Your task to perform on an android device: set the timer Image 0: 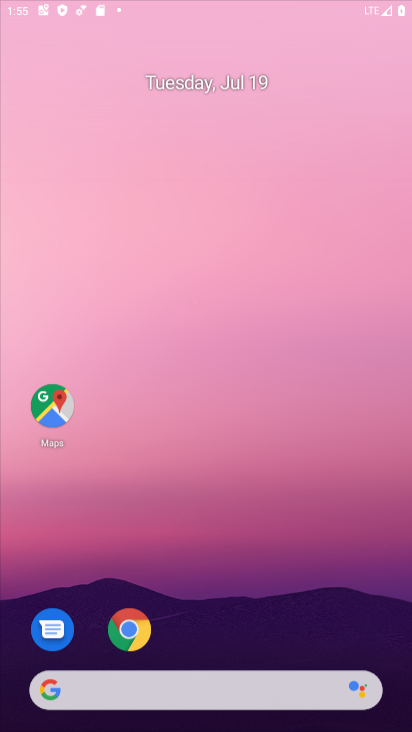
Step 0: press home button
Your task to perform on an android device: set the timer Image 1: 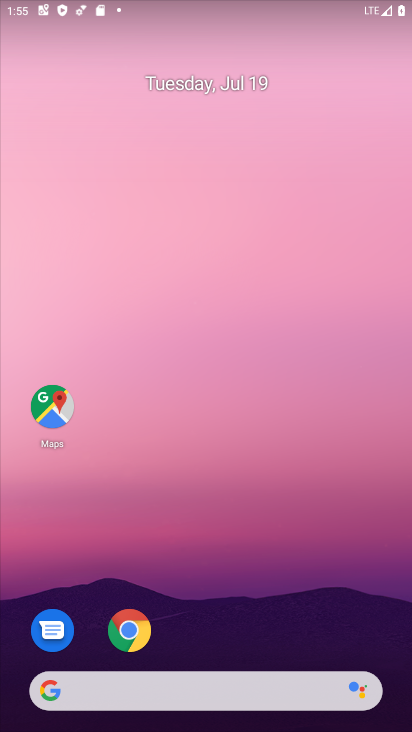
Step 1: drag from (211, 658) to (250, 147)
Your task to perform on an android device: set the timer Image 2: 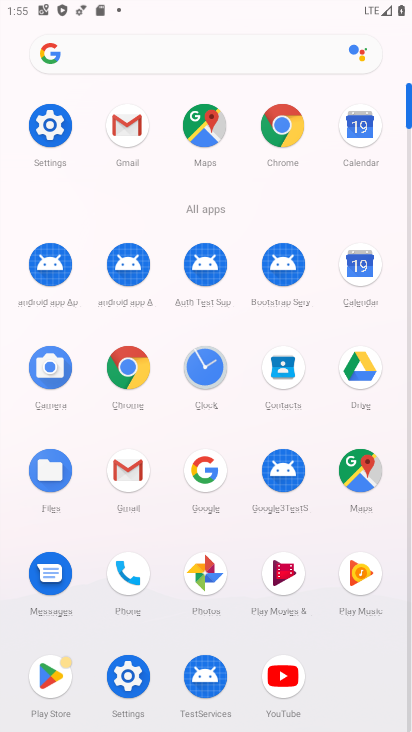
Step 2: click (198, 356)
Your task to perform on an android device: set the timer Image 3: 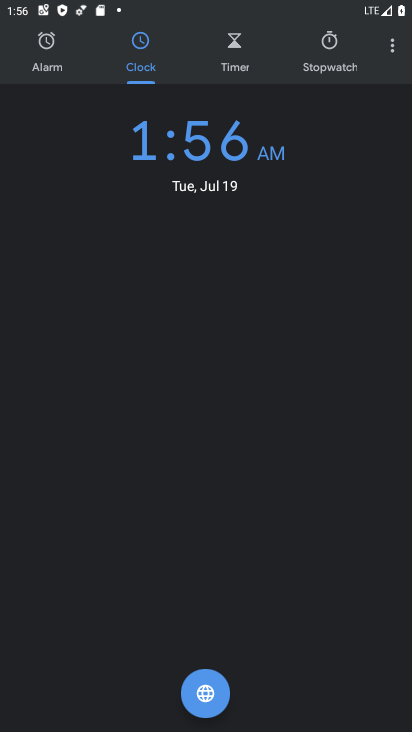
Step 3: click (231, 48)
Your task to perform on an android device: set the timer Image 4: 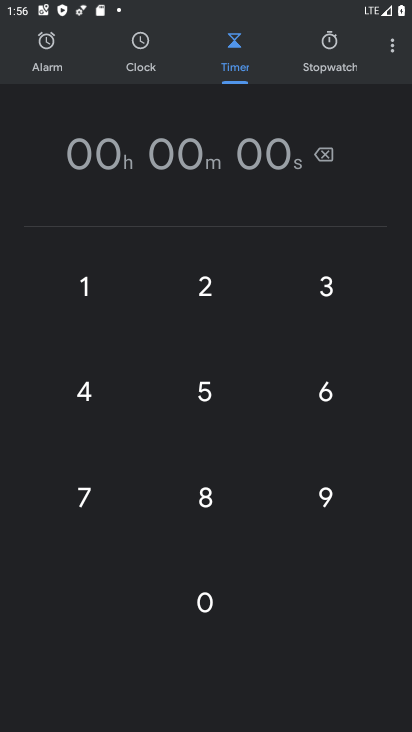
Step 4: click (216, 276)
Your task to perform on an android device: set the timer Image 5: 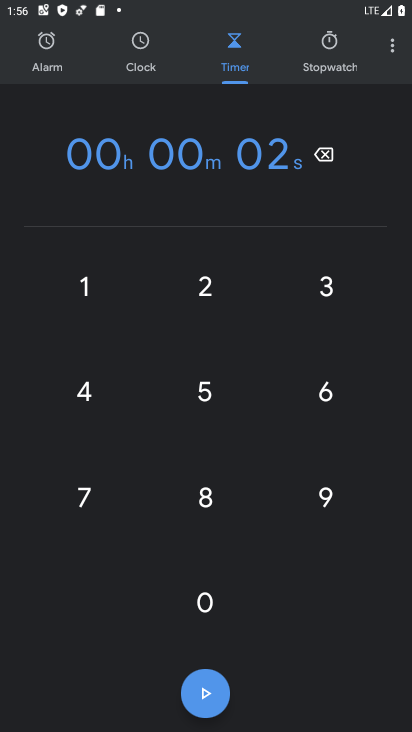
Step 5: click (206, 610)
Your task to perform on an android device: set the timer Image 6: 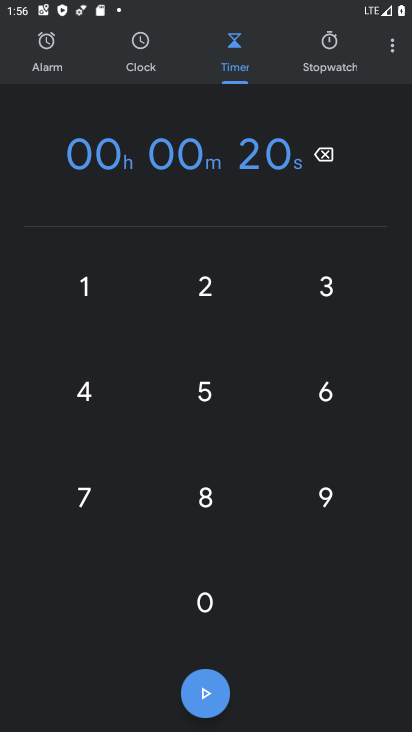
Step 6: click (192, 598)
Your task to perform on an android device: set the timer Image 7: 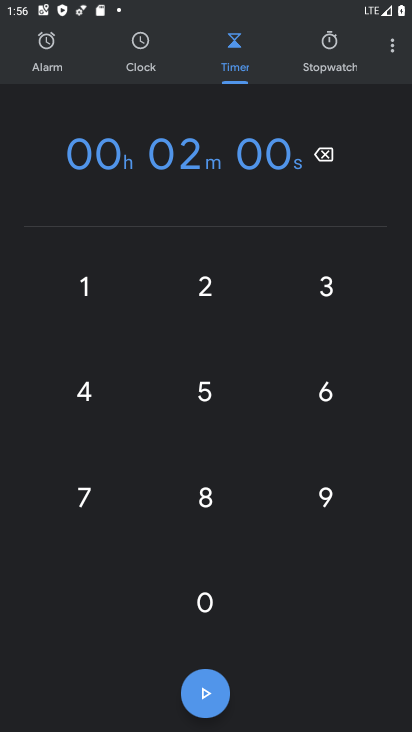
Step 7: click (192, 598)
Your task to perform on an android device: set the timer Image 8: 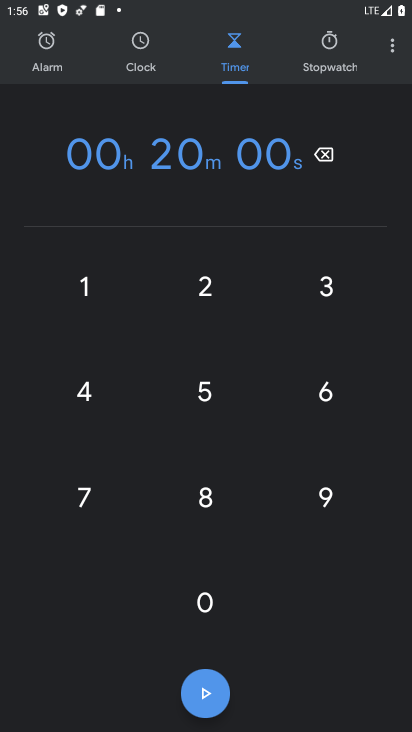
Step 8: click (201, 688)
Your task to perform on an android device: set the timer Image 9: 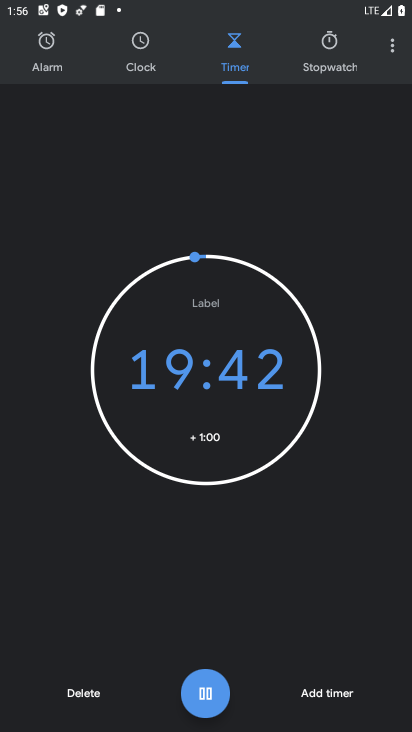
Step 9: task complete